Your task to perform on an android device: turn off data saver in the chrome app Image 0: 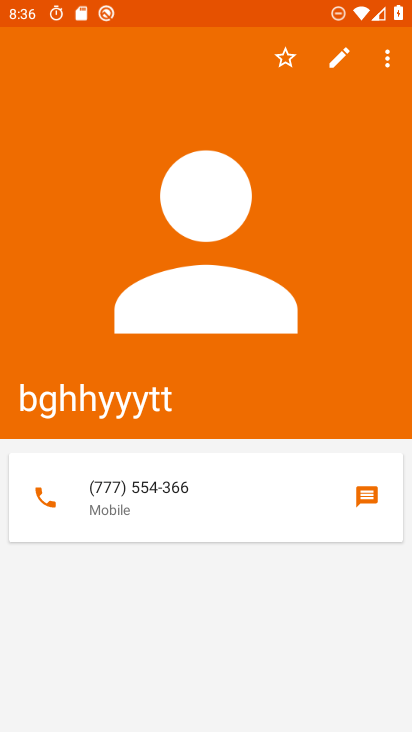
Step 0: press home button
Your task to perform on an android device: turn off data saver in the chrome app Image 1: 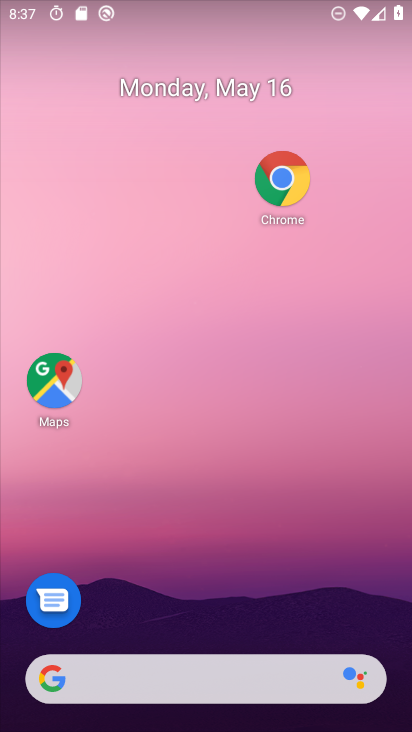
Step 1: click (276, 180)
Your task to perform on an android device: turn off data saver in the chrome app Image 2: 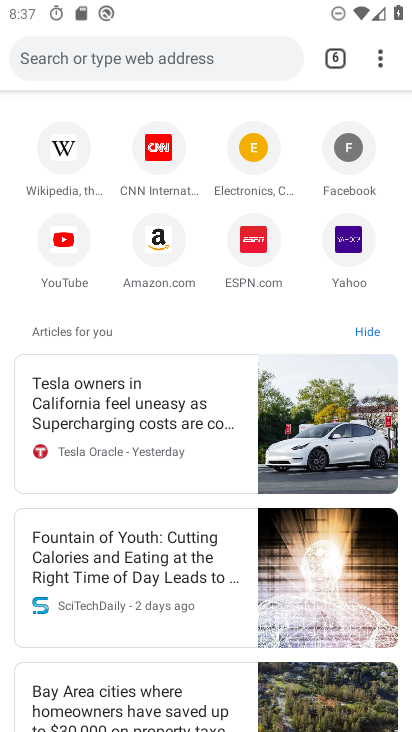
Step 2: drag from (380, 62) to (230, 492)
Your task to perform on an android device: turn off data saver in the chrome app Image 3: 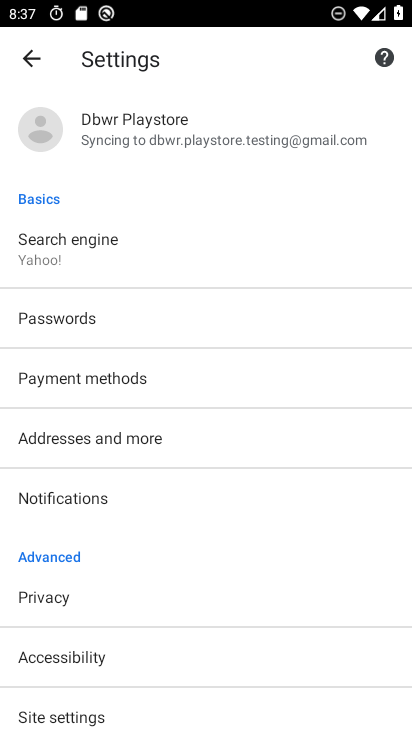
Step 3: drag from (157, 595) to (305, 329)
Your task to perform on an android device: turn off data saver in the chrome app Image 4: 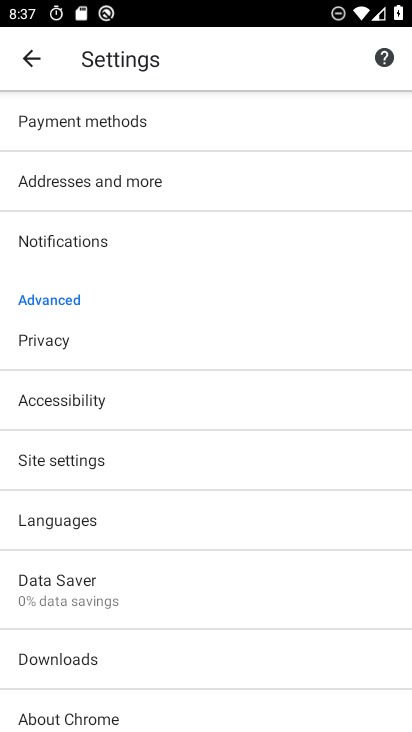
Step 4: click (96, 593)
Your task to perform on an android device: turn off data saver in the chrome app Image 5: 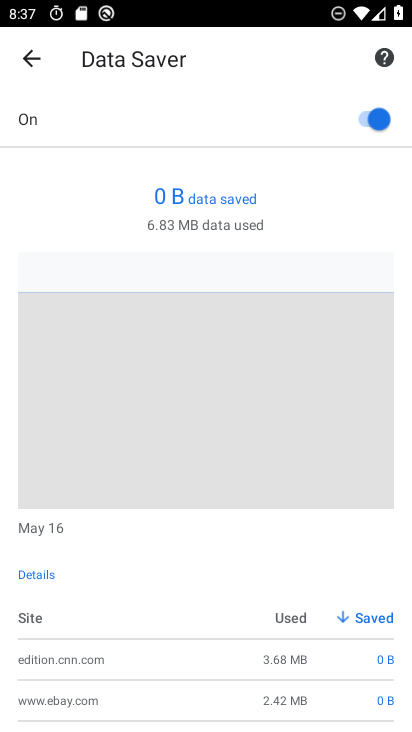
Step 5: click (366, 122)
Your task to perform on an android device: turn off data saver in the chrome app Image 6: 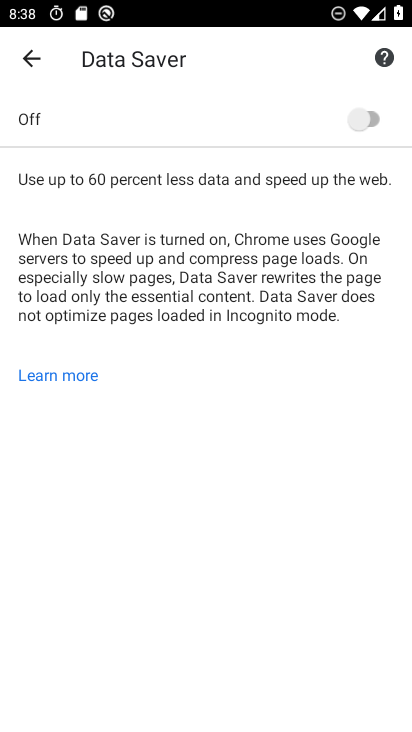
Step 6: task complete